Your task to perform on an android device: check data usage Image 0: 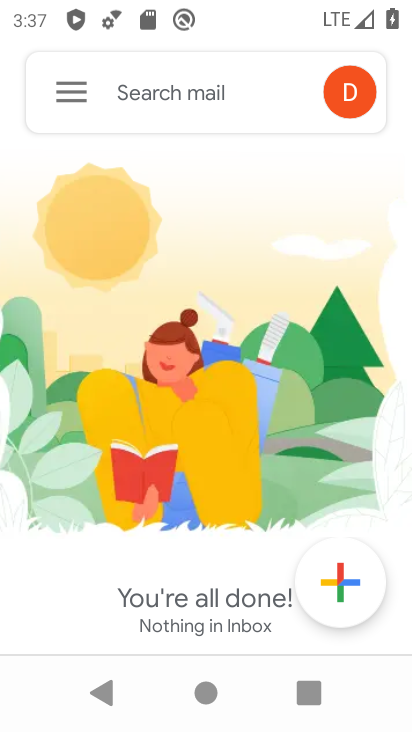
Step 0: press back button
Your task to perform on an android device: check data usage Image 1: 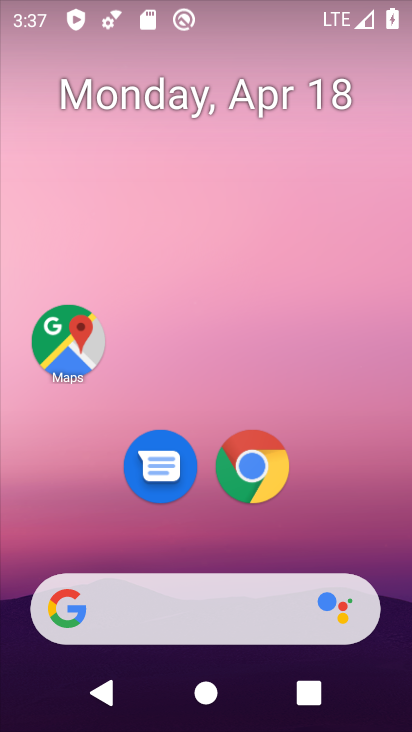
Step 1: drag from (333, 532) to (224, 100)
Your task to perform on an android device: check data usage Image 2: 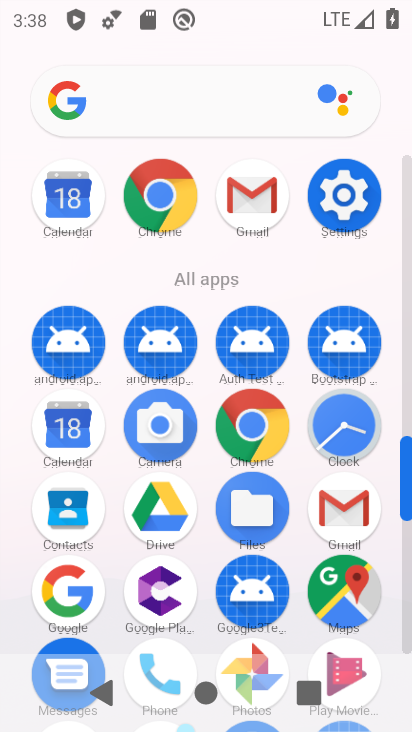
Step 2: click (331, 207)
Your task to perform on an android device: check data usage Image 3: 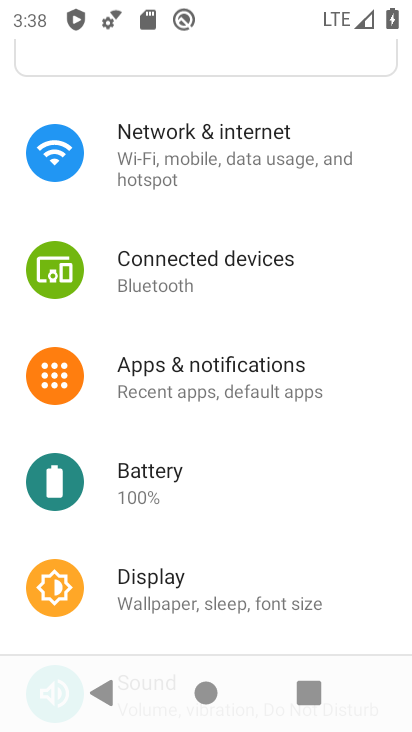
Step 3: click (279, 182)
Your task to perform on an android device: check data usage Image 4: 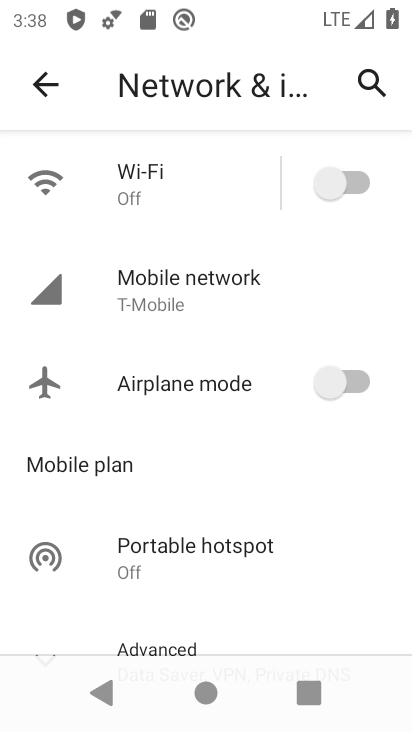
Step 4: click (244, 286)
Your task to perform on an android device: check data usage Image 5: 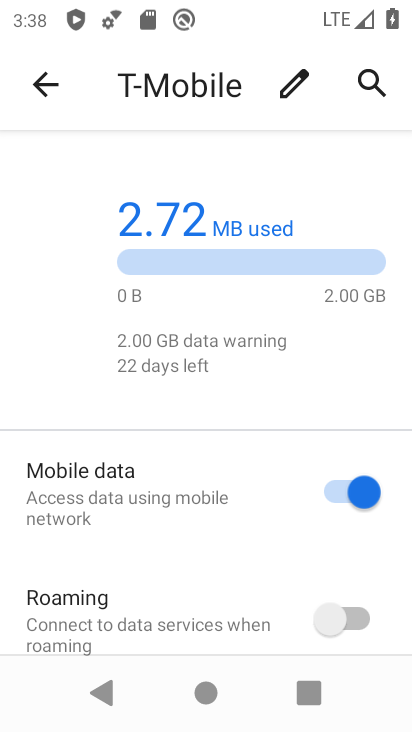
Step 5: task complete